Your task to perform on an android device: clear history in the chrome app Image 0: 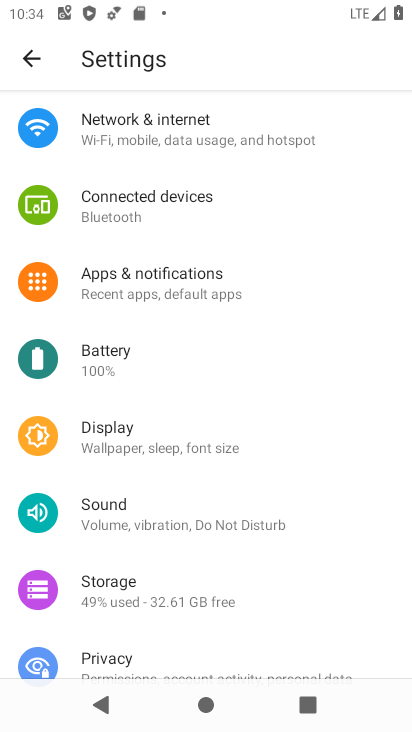
Step 0: press home button
Your task to perform on an android device: clear history in the chrome app Image 1: 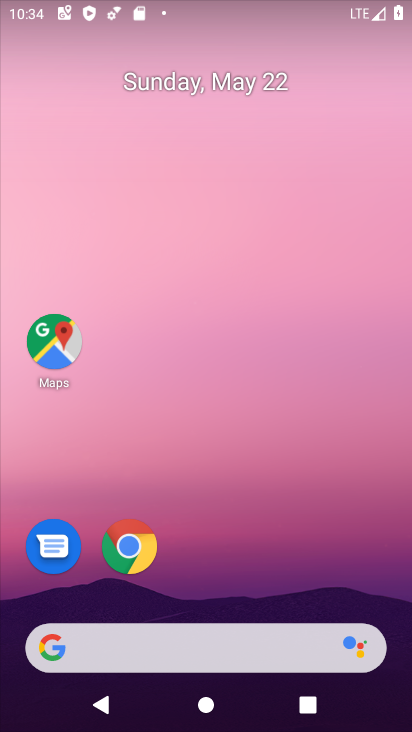
Step 1: drag from (210, 604) to (235, 81)
Your task to perform on an android device: clear history in the chrome app Image 2: 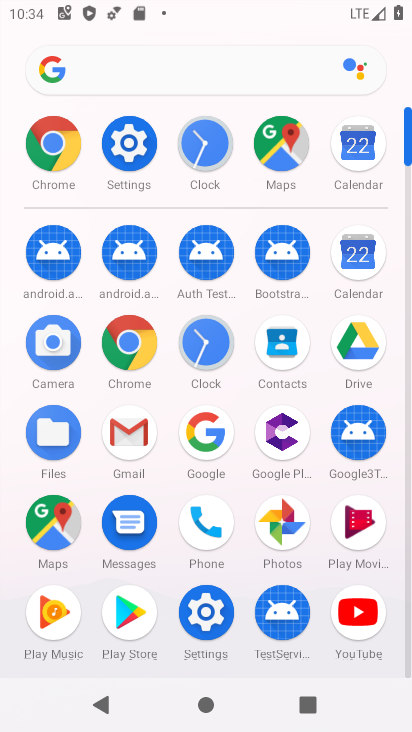
Step 2: click (139, 352)
Your task to perform on an android device: clear history in the chrome app Image 3: 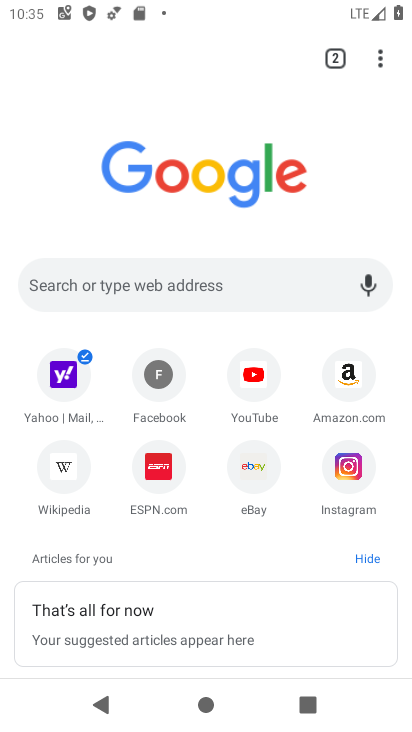
Step 3: click (378, 54)
Your task to perform on an android device: clear history in the chrome app Image 4: 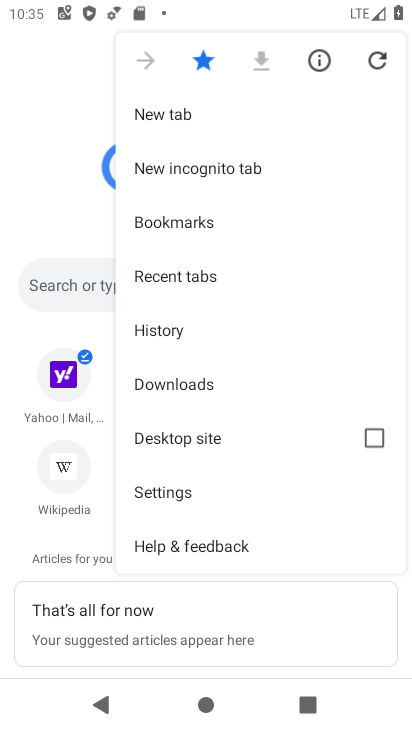
Step 4: click (164, 334)
Your task to perform on an android device: clear history in the chrome app Image 5: 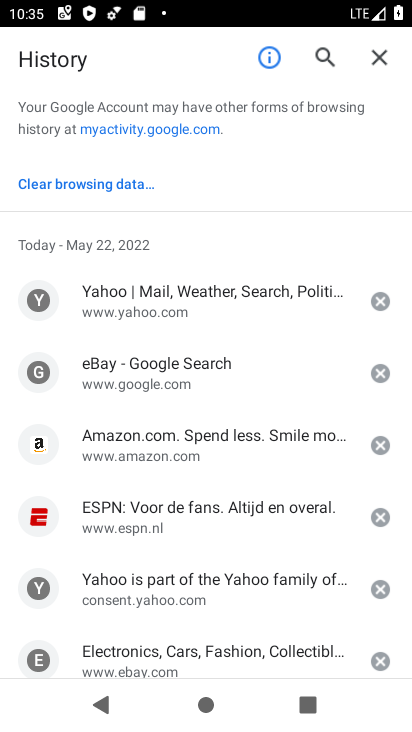
Step 5: click (84, 191)
Your task to perform on an android device: clear history in the chrome app Image 6: 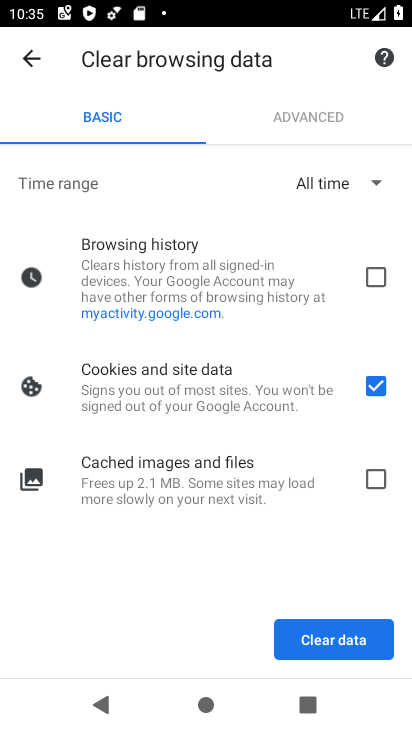
Step 6: click (372, 276)
Your task to perform on an android device: clear history in the chrome app Image 7: 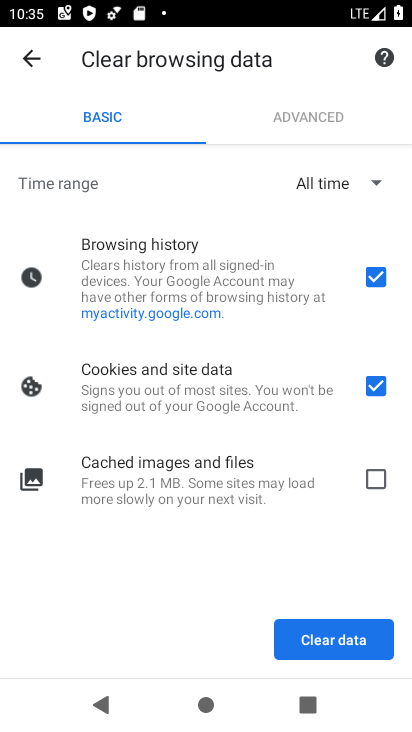
Step 7: click (372, 385)
Your task to perform on an android device: clear history in the chrome app Image 8: 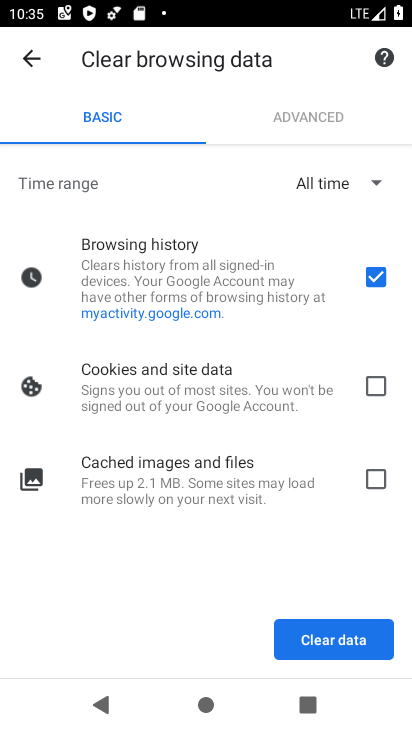
Step 8: click (318, 636)
Your task to perform on an android device: clear history in the chrome app Image 9: 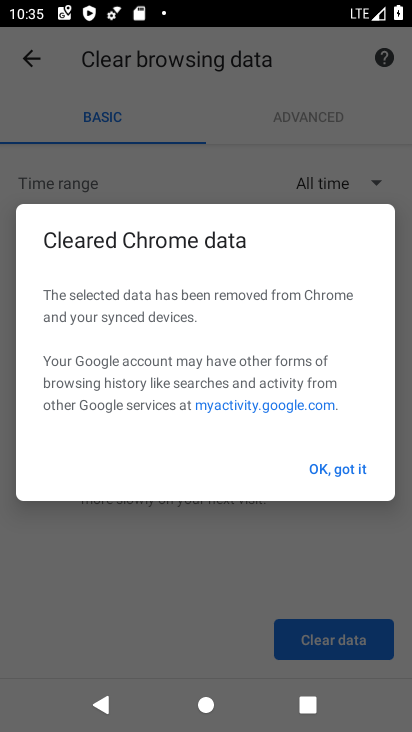
Step 9: click (349, 467)
Your task to perform on an android device: clear history in the chrome app Image 10: 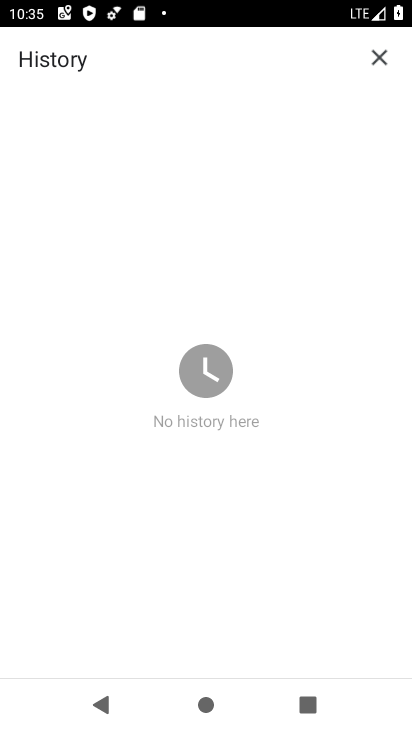
Step 10: task complete